Your task to perform on an android device: What's the weather today? Image 0: 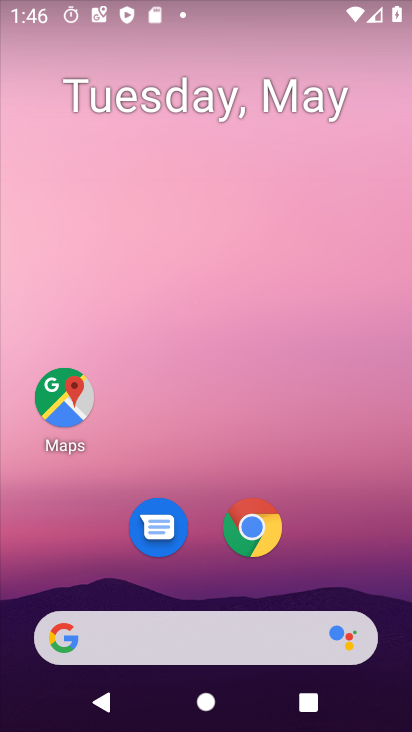
Step 0: drag from (312, 657) to (267, 314)
Your task to perform on an android device: What's the weather today? Image 1: 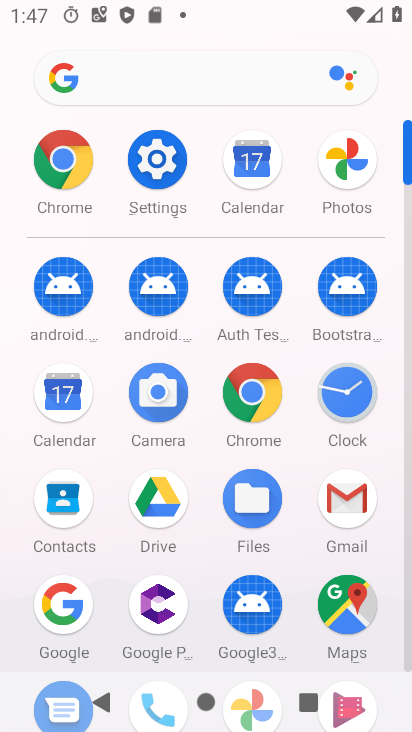
Step 1: click (117, 68)
Your task to perform on an android device: What's the weather today? Image 2: 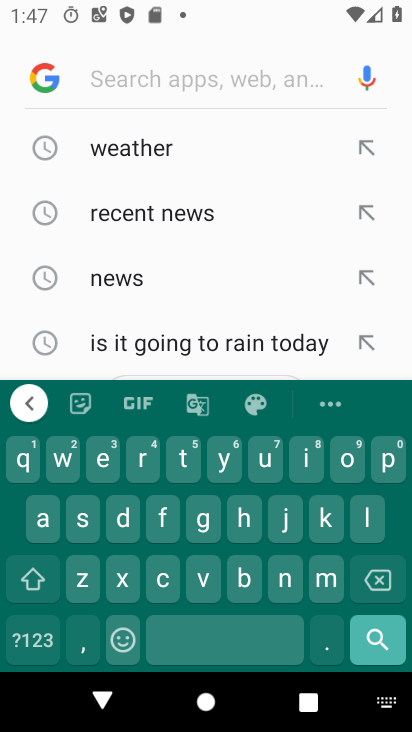
Step 2: click (136, 152)
Your task to perform on an android device: What's the weather today? Image 3: 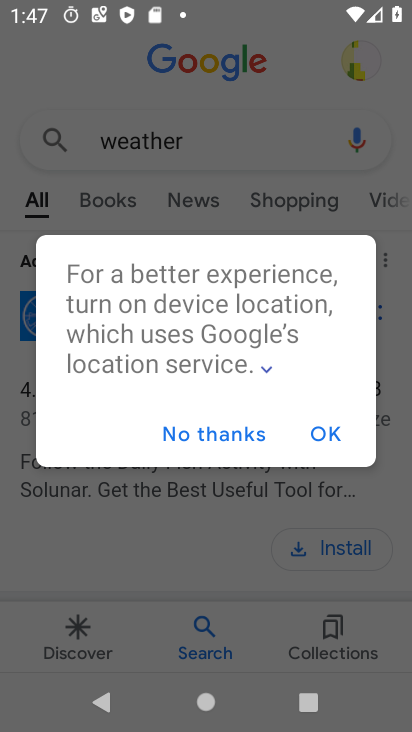
Step 3: click (221, 434)
Your task to perform on an android device: What's the weather today? Image 4: 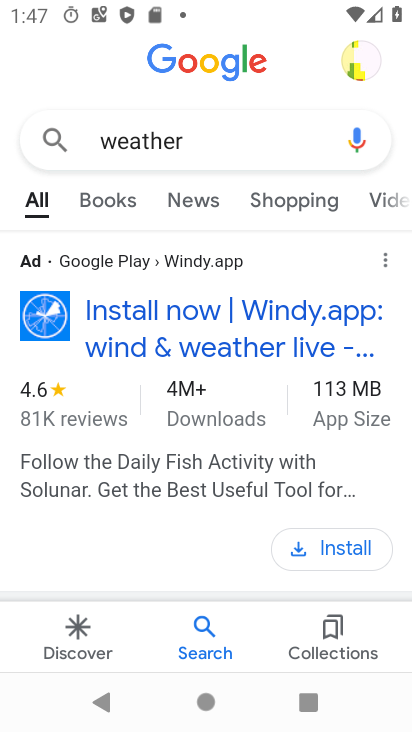
Step 4: drag from (175, 404) to (226, 218)
Your task to perform on an android device: What's the weather today? Image 5: 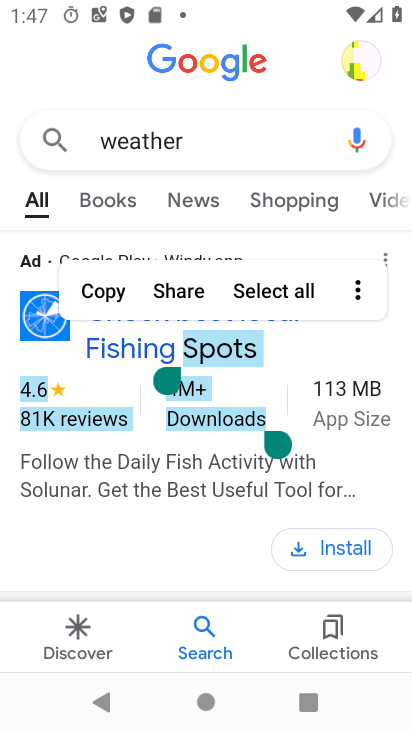
Step 5: click (168, 503)
Your task to perform on an android device: What's the weather today? Image 6: 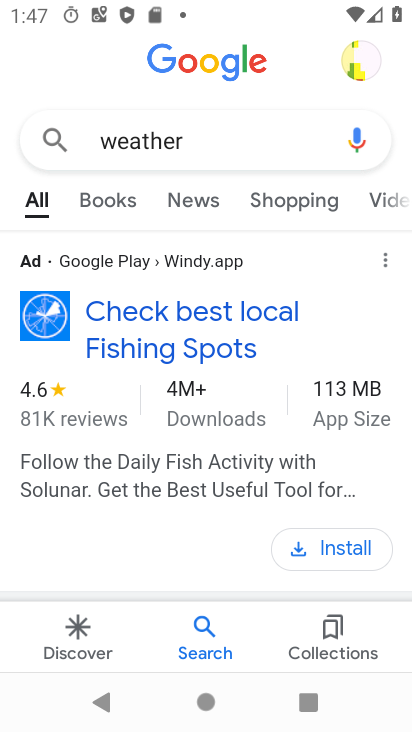
Step 6: task complete